Your task to perform on an android device: turn on the 24-hour format for clock Image 0: 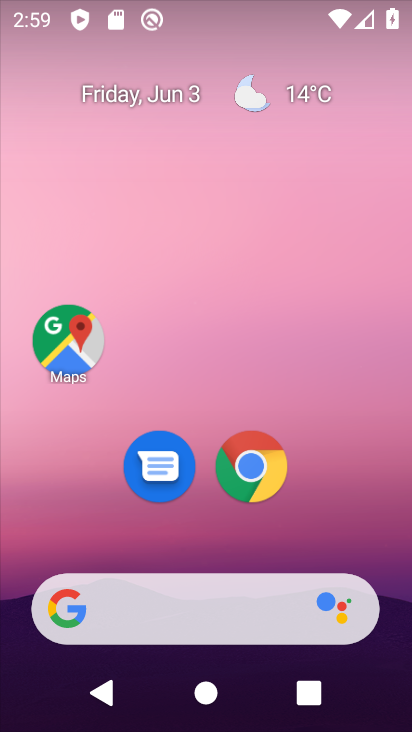
Step 0: drag from (207, 506) to (234, 81)
Your task to perform on an android device: turn on the 24-hour format for clock Image 1: 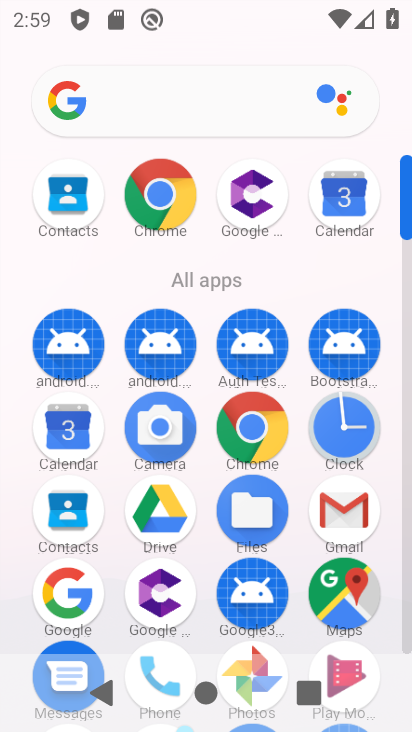
Step 1: click (341, 419)
Your task to perform on an android device: turn on the 24-hour format for clock Image 2: 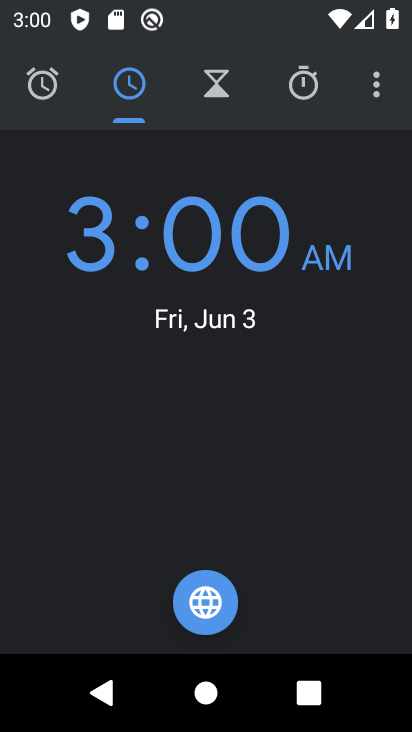
Step 2: click (378, 89)
Your task to perform on an android device: turn on the 24-hour format for clock Image 3: 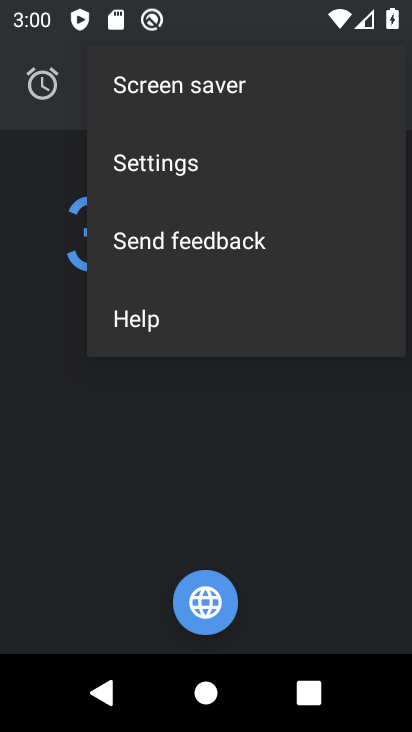
Step 3: click (191, 165)
Your task to perform on an android device: turn on the 24-hour format for clock Image 4: 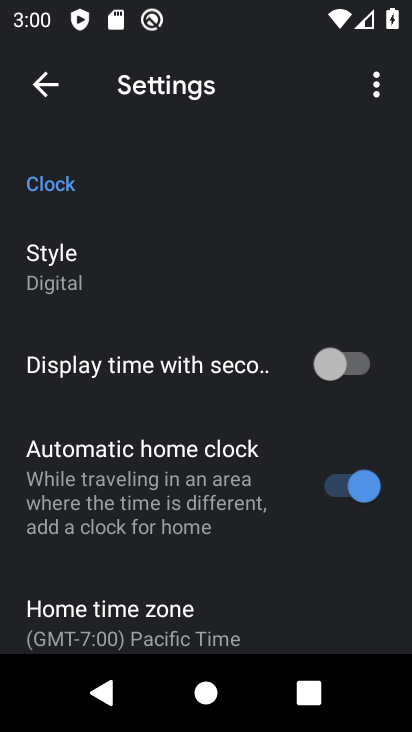
Step 4: drag from (284, 529) to (315, 98)
Your task to perform on an android device: turn on the 24-hour format for clock Image 5: 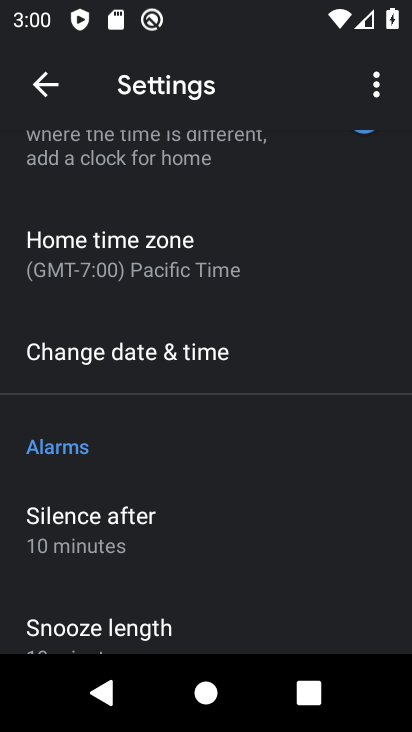
Step 5: click (257, 353)
Your task to perform on an android device: turn on the 24-hour format for clock Image 6: 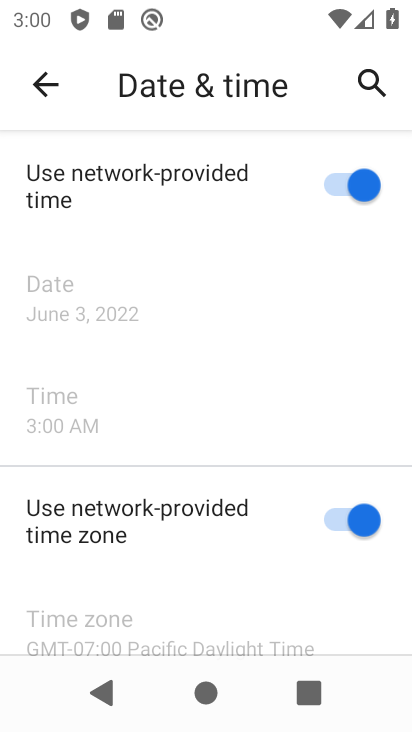
Step 6: task complete